Your task to perform on an android device: What is the recent news? Image 0: 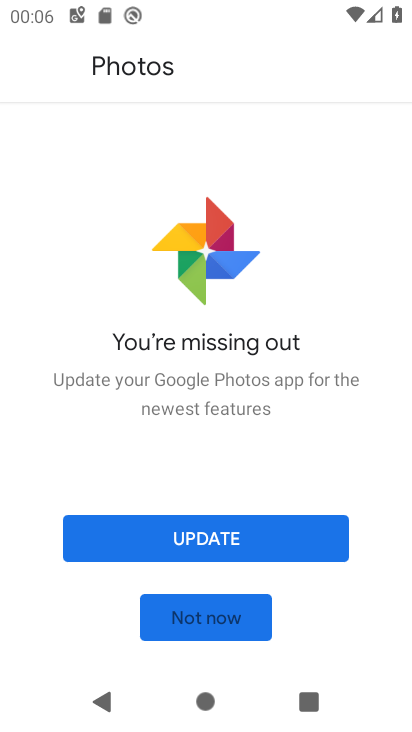
Step 0: press home button
Your task to perform on an android device: What is the recent news? Image 1: 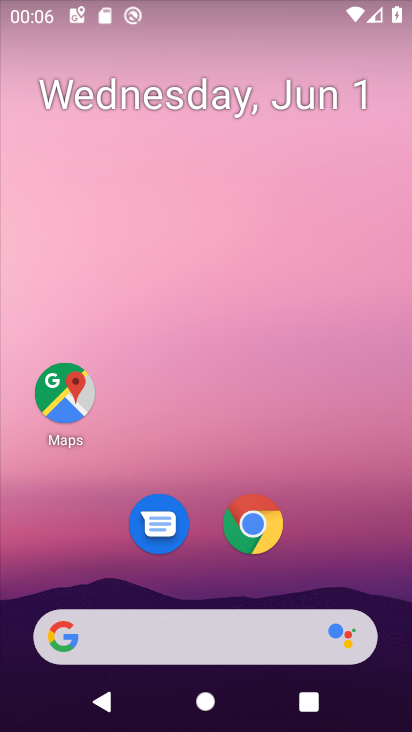
Step 1: click (263, 636)
Your task to perform on an android device: What is the recent news? Image 2: 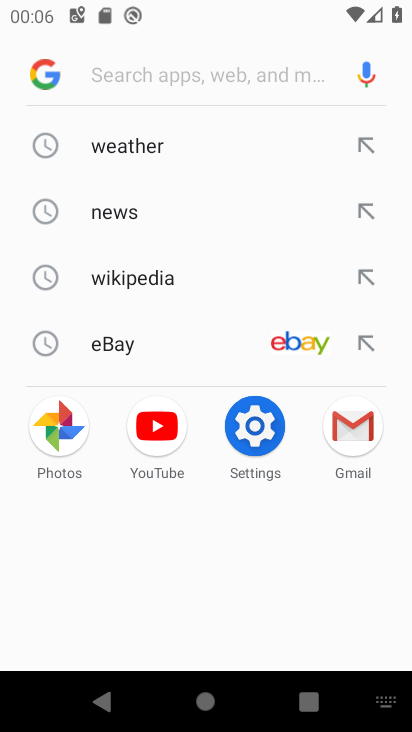
Step 2: click (118, 215)
Your task to perform on an android device: What is the recent news? Image 3: 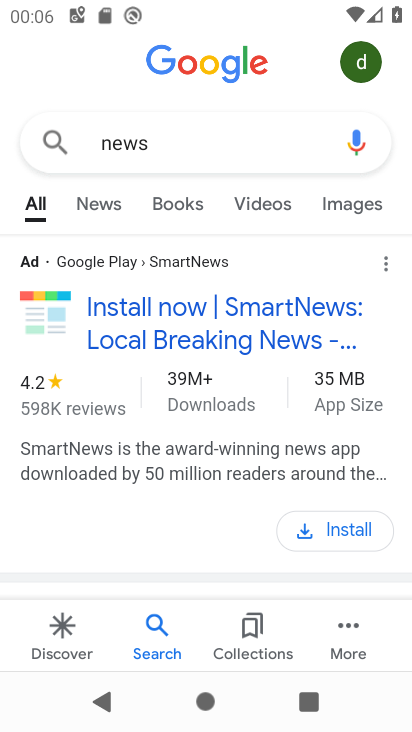
Step 3: click (110, 200)
Your task to perform on an android device: What is the recent news? Image 4: 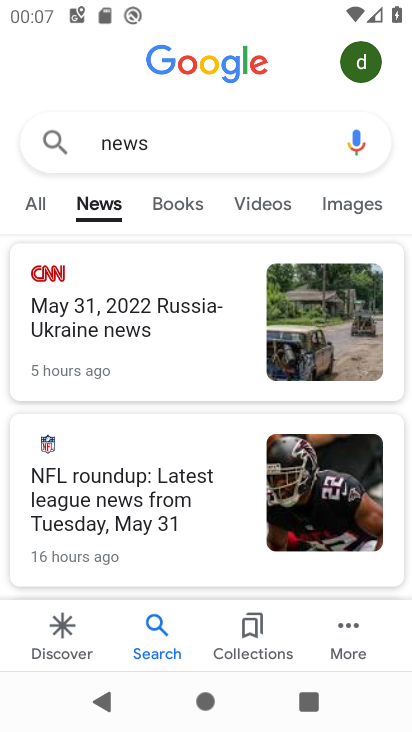
Step 4: task complete